Your task to perform on an android device: What's the price of the TCL TV? Image 0: 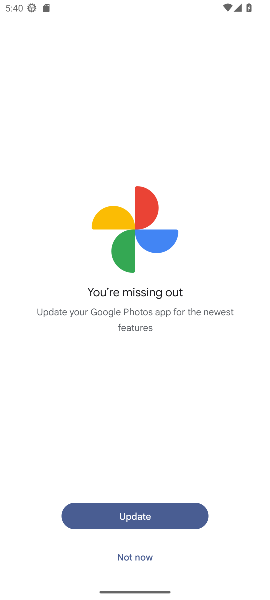
Step 0: press home button
Your task to perform on an android device: What's the price of the TCL TV? Image 1: 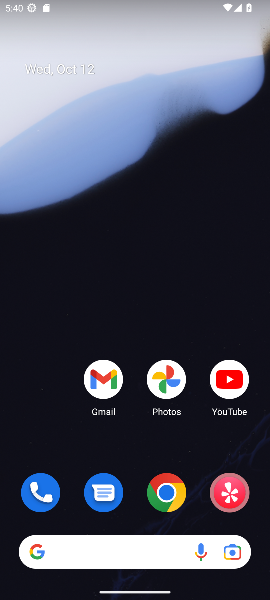
Step 1: click (169, 499)
Your task to perform on an android device: What's the price of the TCL TV? Image 2: 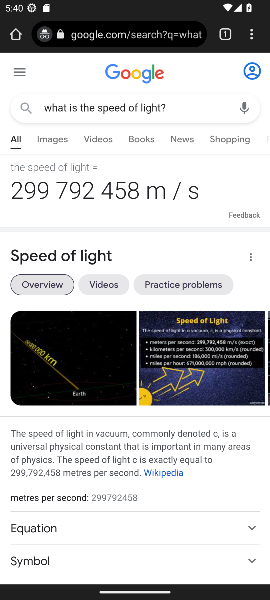
Step 2: click (185, 111)
Your task to perform on an android device: What's the price of the TCL TV? Image 3: 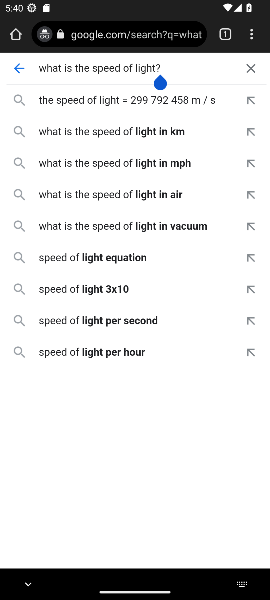
Step 3: click (255, 68)
Your task to perform on an android device: What's the price of the TCL TV? Image 4: 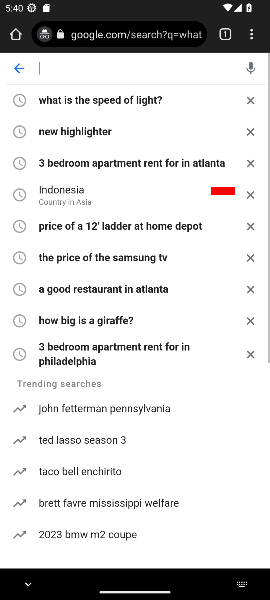
Step 4: type " price of the TCL TV"
Your task to perform on an android device: What's the price of the TCL TV? Image 5: 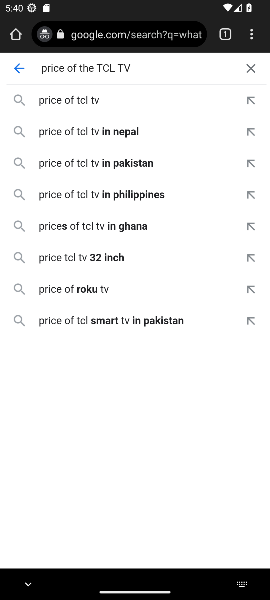
Step 5: click (56, 103)
Your task to perform on an android device: What's the price of the TCL TV? Image 6: 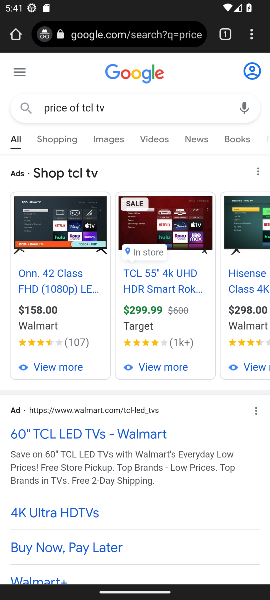
Step 6: click (58, 136)
Your task to perform on an android device: What's the price of the TCL TV? Image 7: 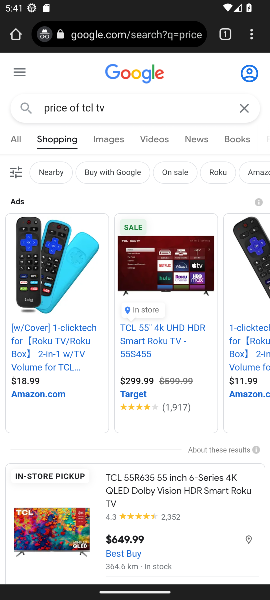
Step 7: task complete